Your task to perform on an android device: turn on wifi Image 0: 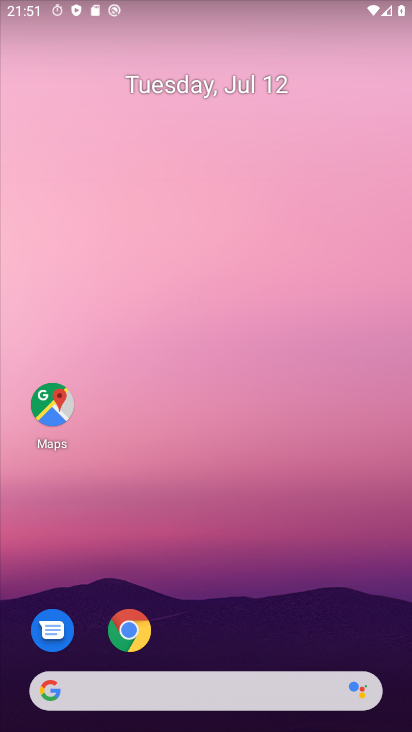
Step 0: drag from (111, 7) to (179, 670)
Your task to perform on an android device: turn on wifi Image 1: 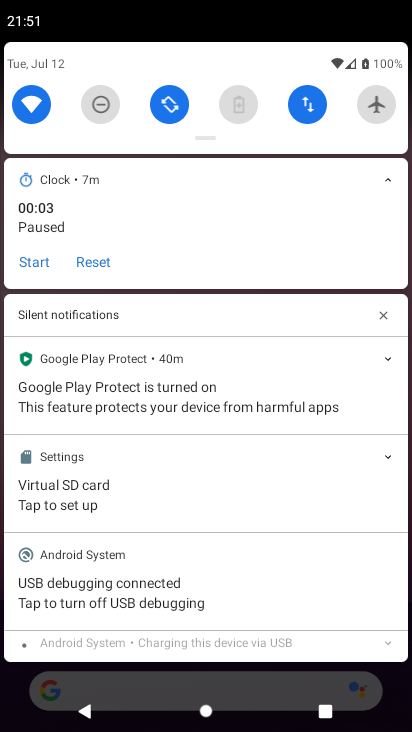
Step 1: task complete